Your task to perform on an android device: What is the recent news? Image 0: 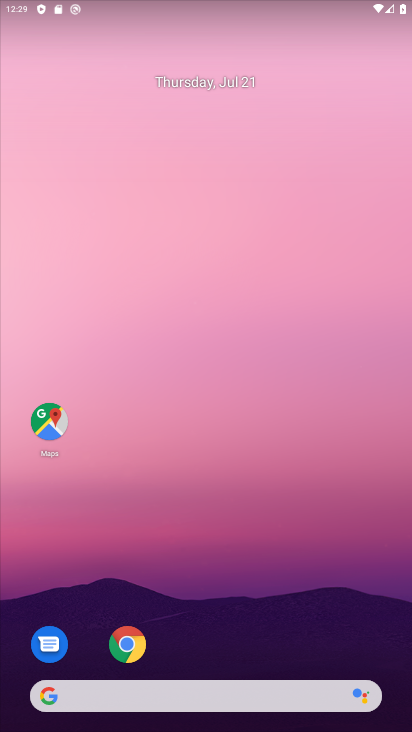
Step 0: drag from (3, 274) to (388, 264)
Your task to perform on an android device: What is the recent news? Image 1: 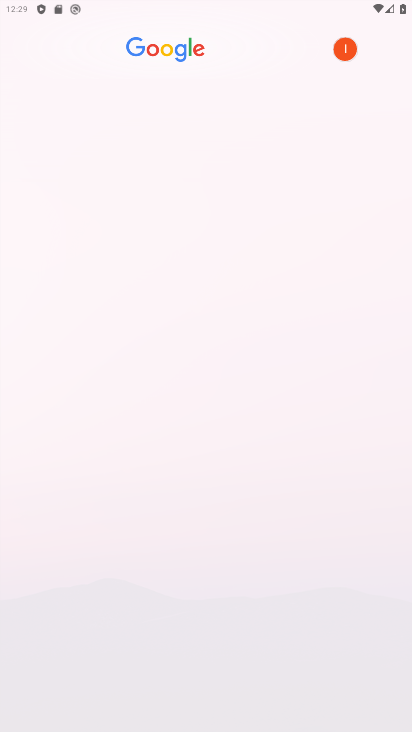
Step 1: task complete